Your task to perform on an android device: Go to Reddit.com Image 0: 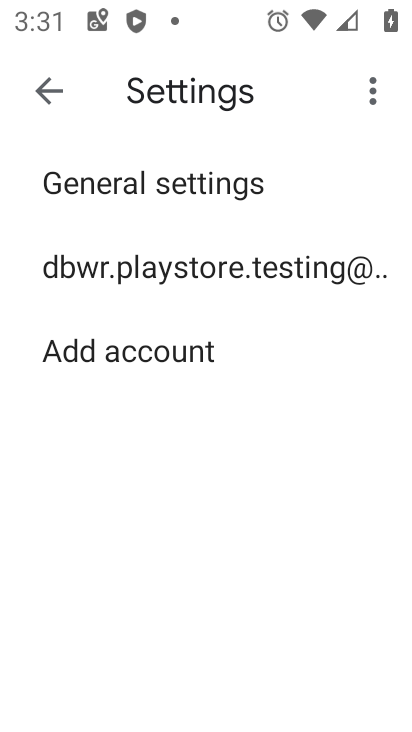
Step 0: press home button
Your task to perform on an android device: Go to Reddit.com Image 1: 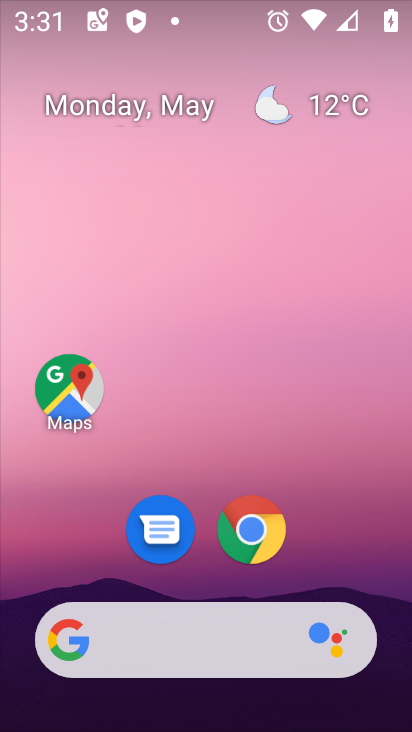
Step 1: click (255, 523)
Your task to perform on an android device: Go to Reddit.com Image 2: 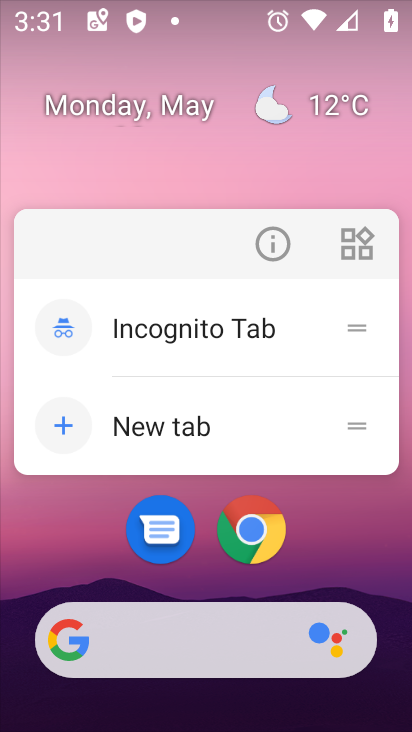
Step 2: click (240, 528)
Your task to perform on an android device: Go to Reddit.com Image 3: 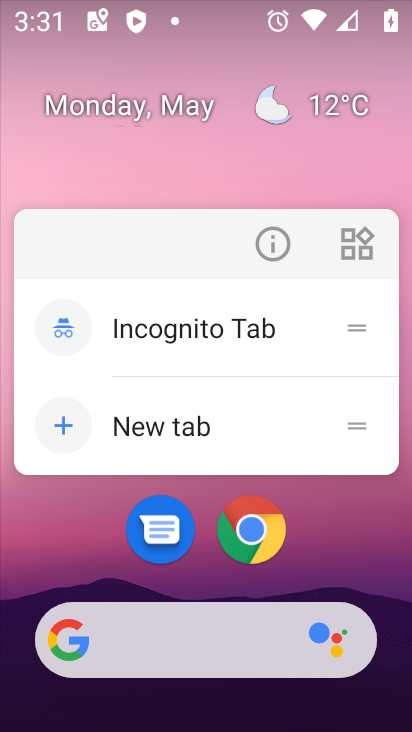
Step 3: click (240, 528)
Your task to perform on an android device: Go to Reddit.com Image 4: 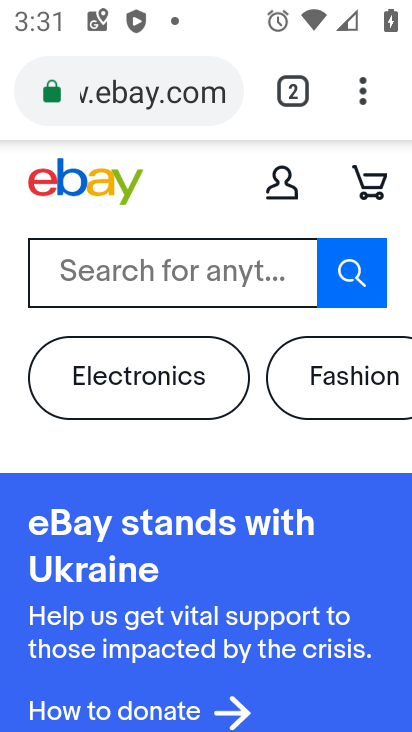
Step 4: click (125, 107)
Your task to perform on an android device: Go to Reddit.com Image 5: 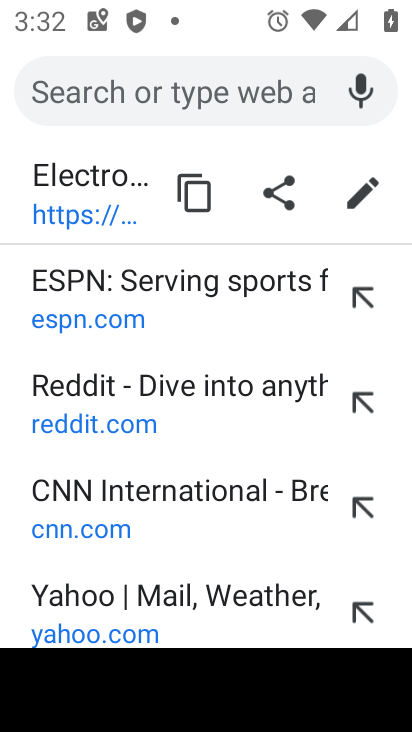
Step 5: type "Reddit.com"
Your task to perform on an android device: Go to Reddit.com Image 6: 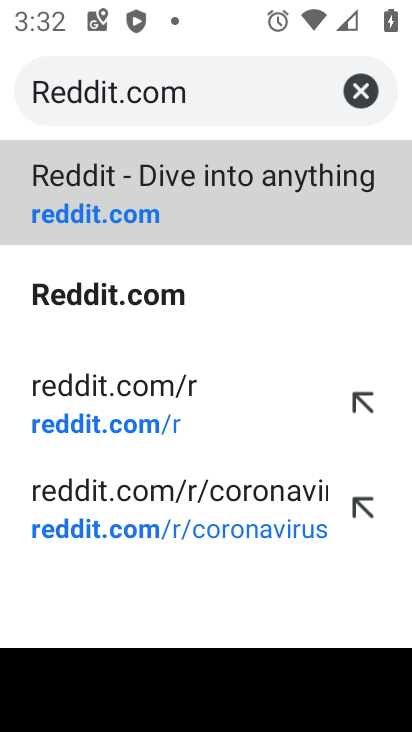
Step 6: click (194, 208)
Your task to perform on an android device: Go to Reddit.com Image 7: 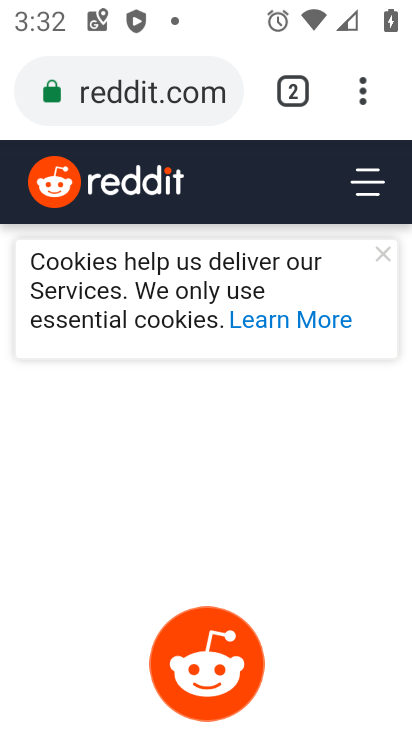
Step 7: task complete